Your task to perform on an android device: turn off notifications settings in the gmail app Image 0: 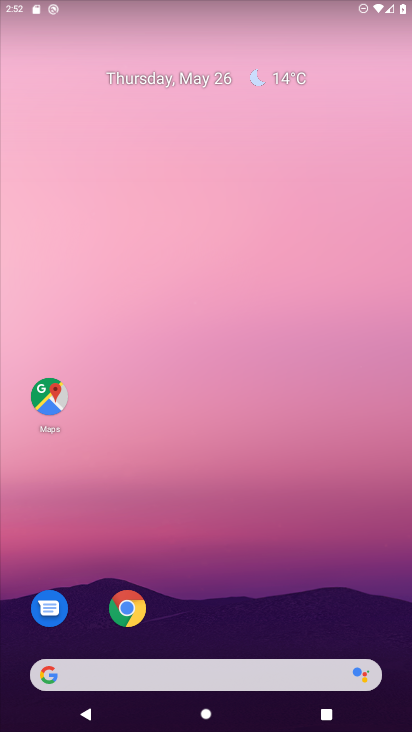
Step 0: drag from (288, 437) to (278, 48)
Your task to perform on an android device: turn off notifications settings in the gmail app Image 1: 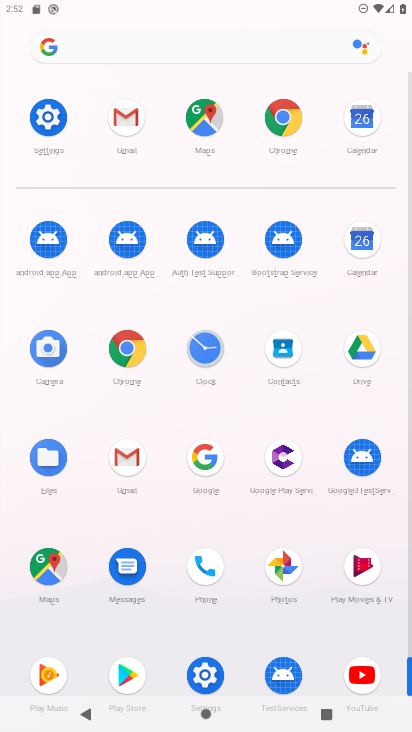
Step 1: click (121, 111)
Your task to perform on an android device: turn off notifications settings in the gmail app Image 2: 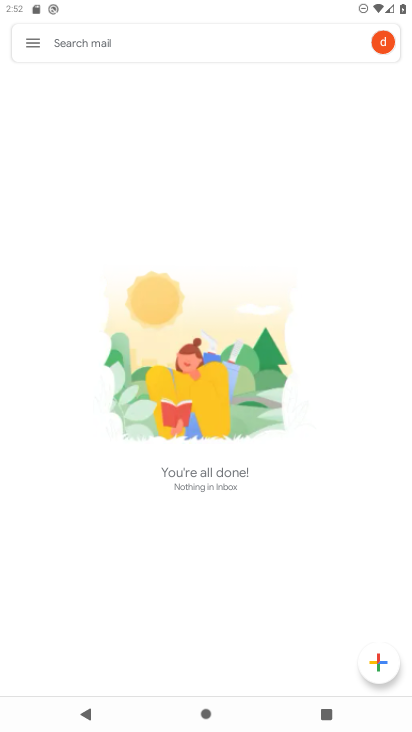
Step 2: click (39, 47)
Your task to perform on an android device: turn off notifications settings in the gmail app Image 3: 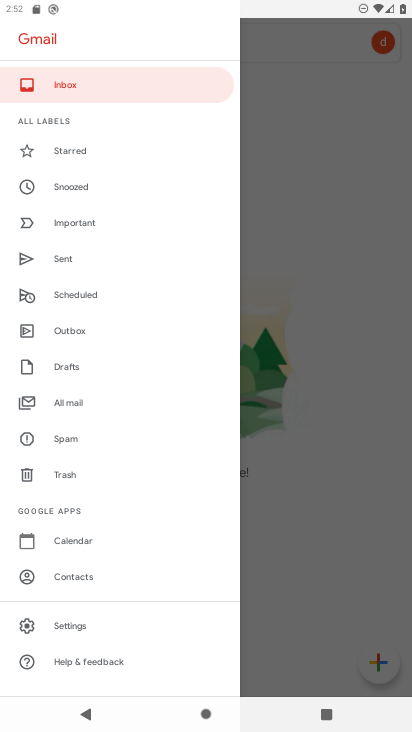
Step 3: drag from (158, 544) to (195, 213)
Your task to perform on an android device: turn off notifications settings in the gmail app Image 4: 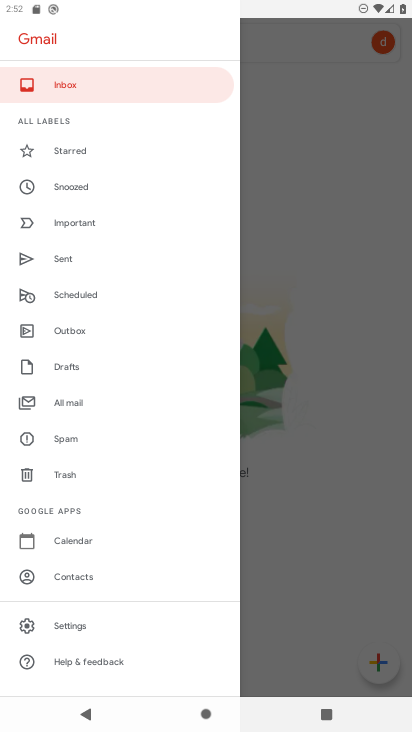
Step 4: click (70, 625)
Your task to perform on an android device: turn off notifications settings in the gmail app Image 5: 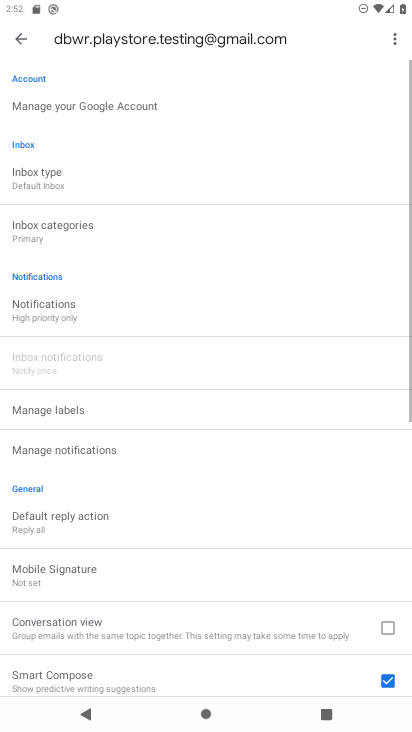
Step 5: click (55, 303)
Your task to perform on an android device: turn off notifications settings in the gmail app Image 6: 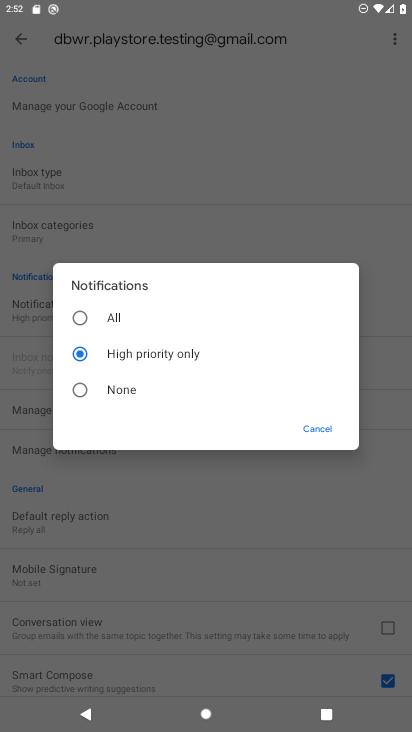
Step 6: click (91, 390)
Your task to perform on an android device: turn off notifications settings in the gmail app Image 7: 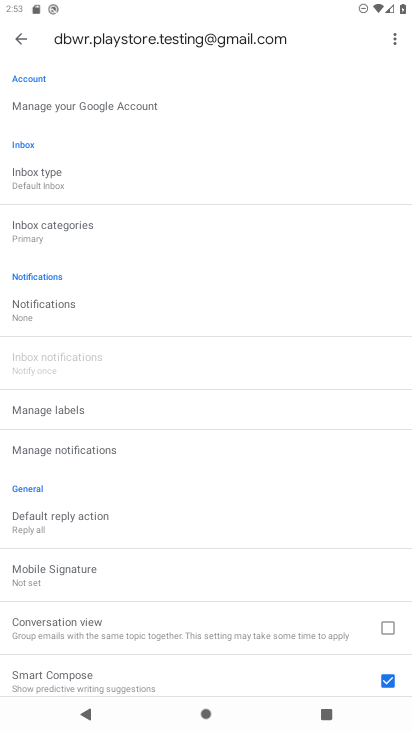
Step 7: task complete